Your task to perform on an android device: stop showing notifications on the lock screen Image 0: 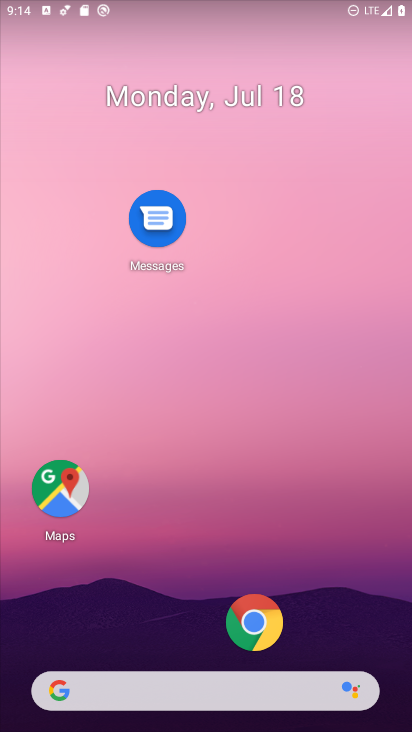
Step 0: press home button
Your task to perform on an android device: stop showing notifications on the lock screen Image 1: 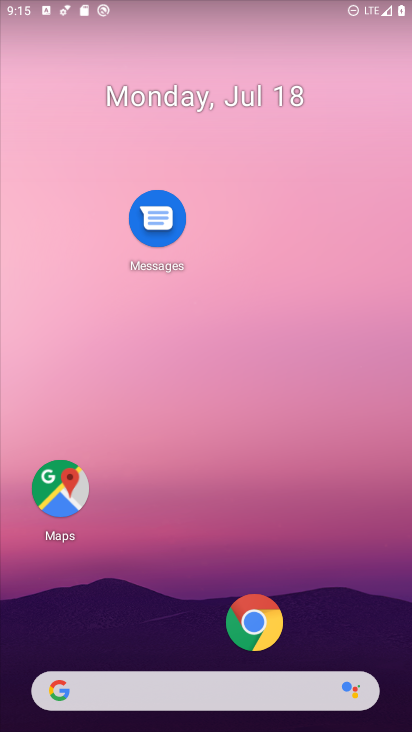
Step 1: drag from (218, 691) to (277, 148)
Your task to perform on an android device: stop showing notifications on the lock screen Image 2: 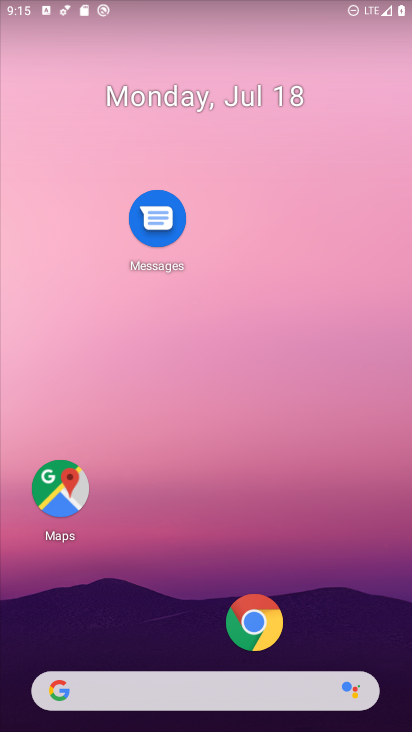
Step 2: drag from (193, 686) to (255, 148)
Your task to perform on an android device: stop showing notifications on the lock screen Image 3: 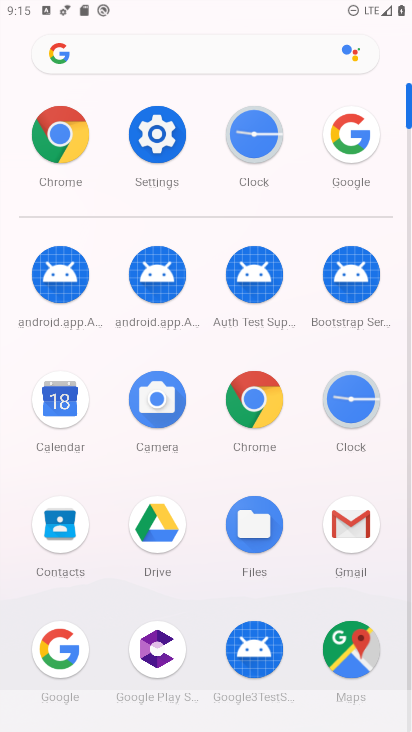
Step 3: click (158, 133)
Your task to perform on an android device: stop showing notifications on the lock screen Image 4: 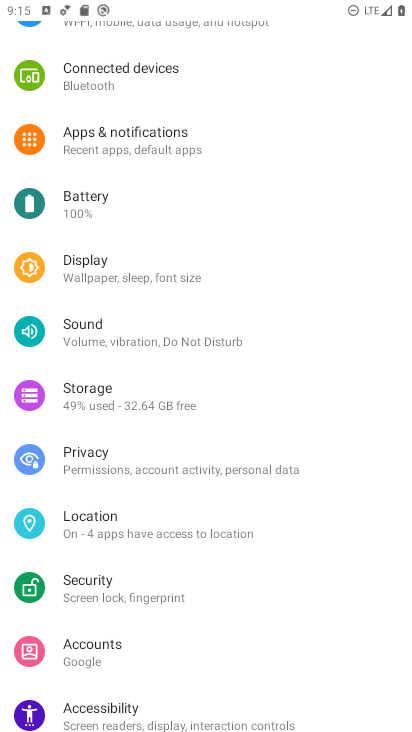
Step 4: drag from (141, 312) to (120, 613)
Your task to perform on an android device: stop showing notifications on the lock screen Image 5: 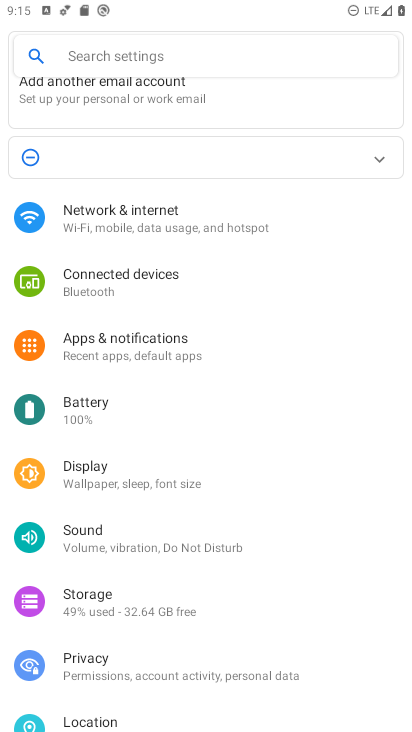
Step 5: drag from (201, 576) to (212, 403)
Your task to perform on an android device: stop showing notifications on the lock screen Image 6: 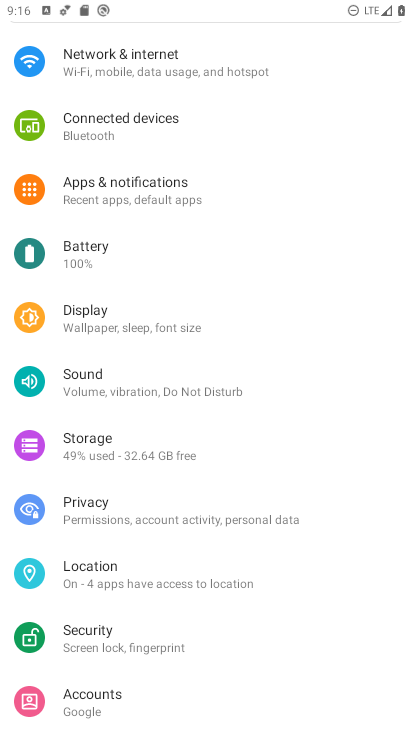
Step 6: click (143, 211)
Your task to perform on an android device: stop showing notifications on the lock screen Image 7: 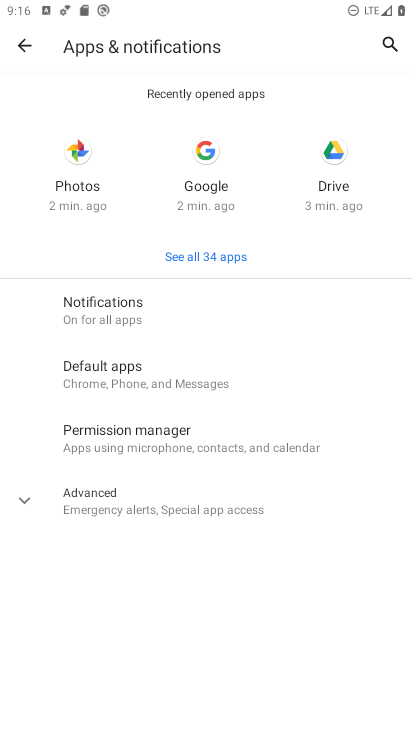
Step 7: click (156, 503)
Your task to perform on an android device: stop showing notifications on the lock screen Image 8: 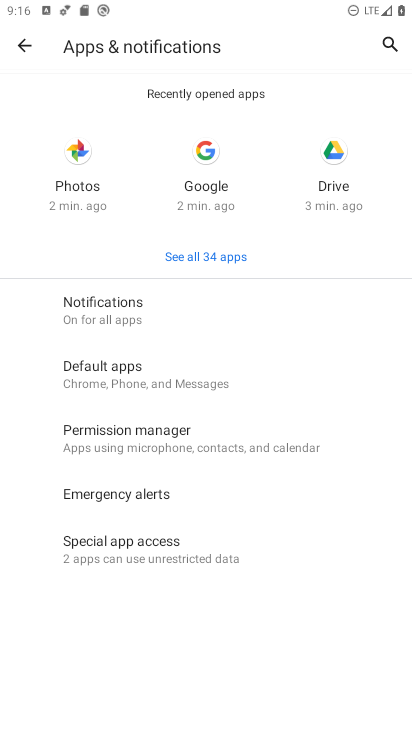
Step 8: click (125, 309)
Your task to perform on an android device: stop showing notifications on the lock screen Image 9: 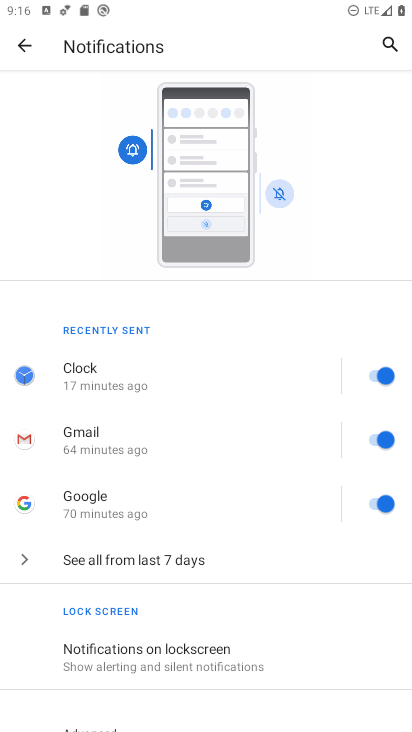
Step 9: click (170, 664)
Your task to perform on an android device: stop showing notifications on the lock screen Image 10: 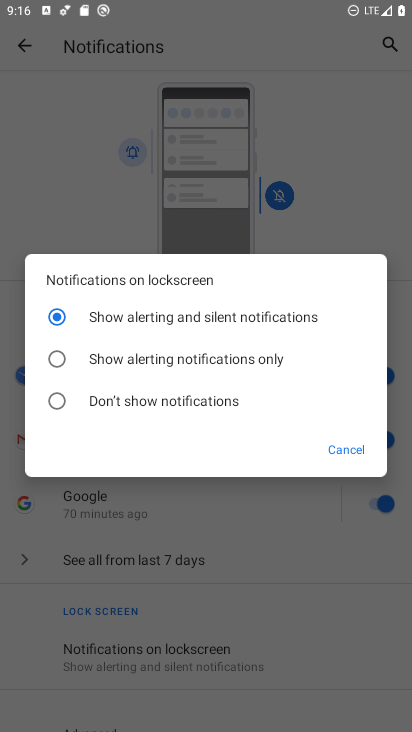
Step 10: click (91, 405)
Your task to perform on an android device: stop showing notifications on the lock screen Image 11: 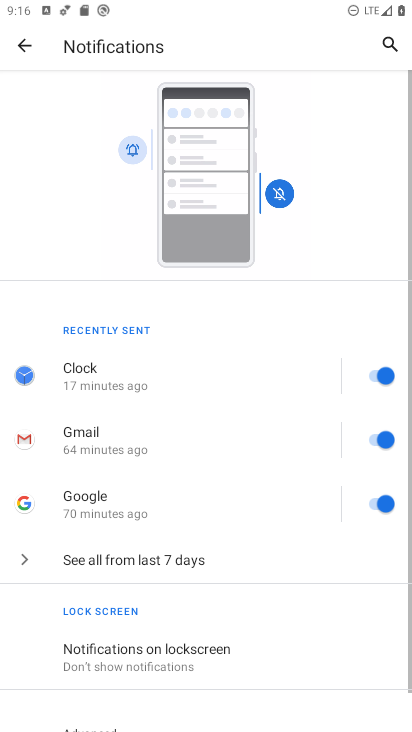
Step 11: task complete